Your task to perform on an android device: Go to Amazon Image 0: 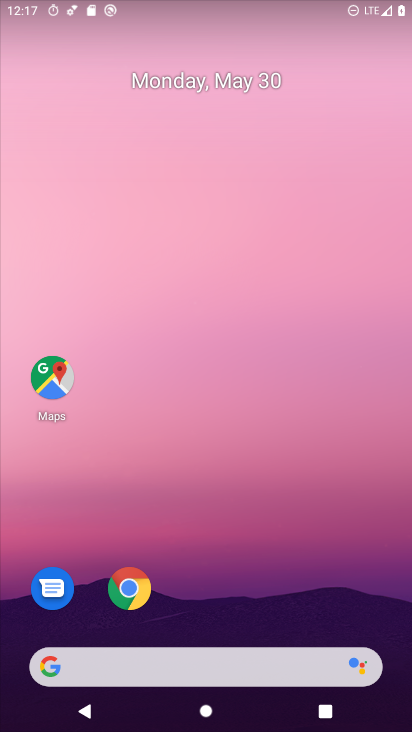
Step 0: drag from (204, 602) to (328, 13)
Your task to perform on an android device: Go to Amazon Image 1: 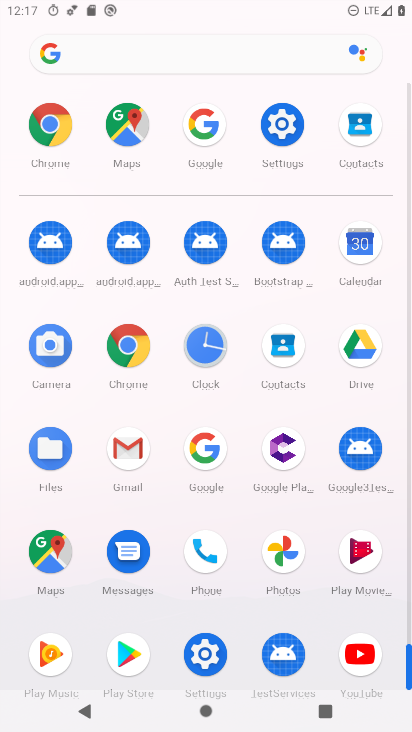
Step 1: click (120, 356)
Your task to perform on an android device: Go to Amazon Image 2: 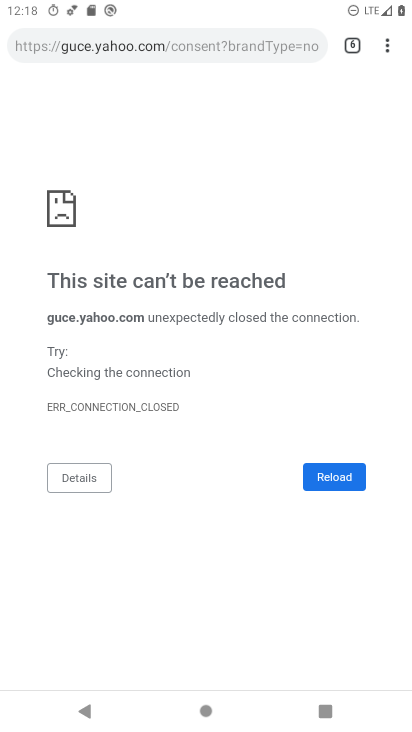
Step 2: click (352, 45)
Your task to perform on an android device: Go to Amazon Image 3: 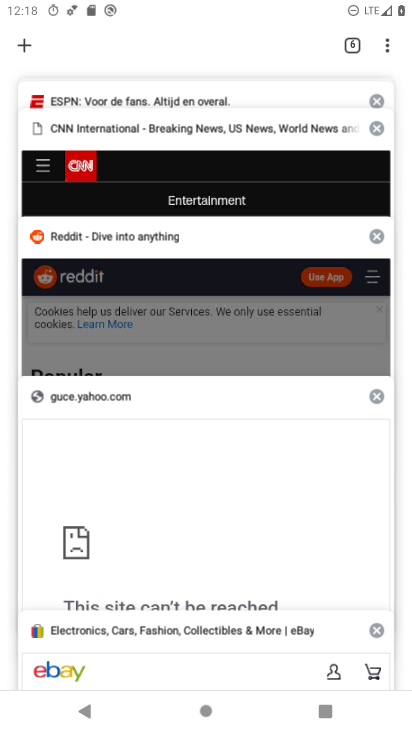
Step 3: click (17, 46)
Your task to perform on an android device: Go to Amazon Image 4: 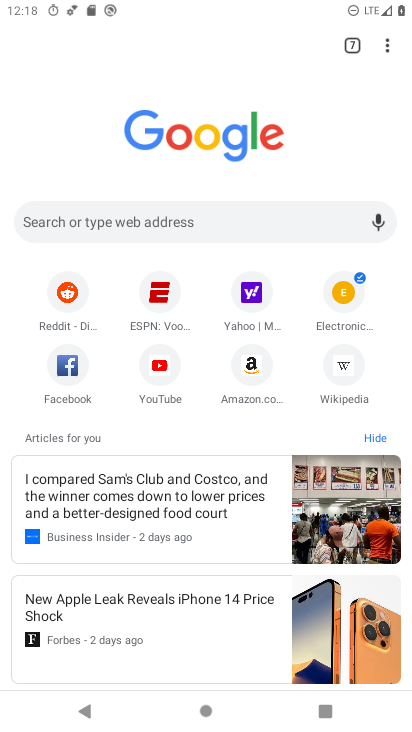
Step 4: click (100, 216)
Your task to perform on an android device: Go to Amazon Image 5: 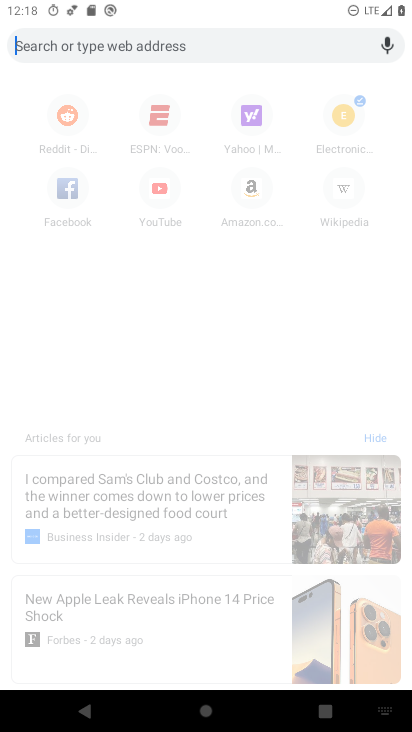
Step 5: type "Amazon"
Your task to perform on an android device: Go to Amazon Image 6: 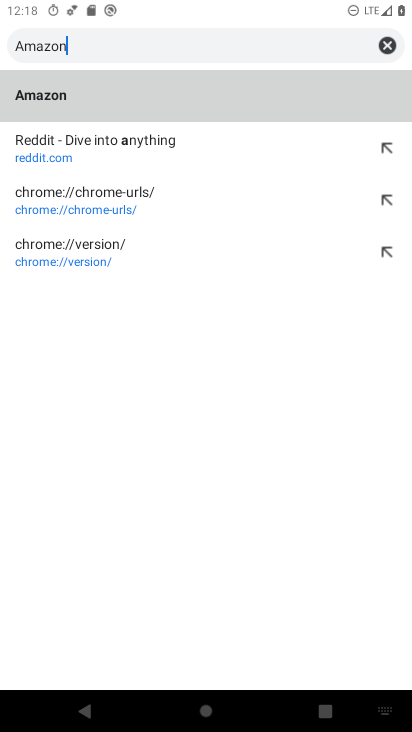
Step 6: type ""
Your task to perform on an android device: Go to Amazon Image 7: 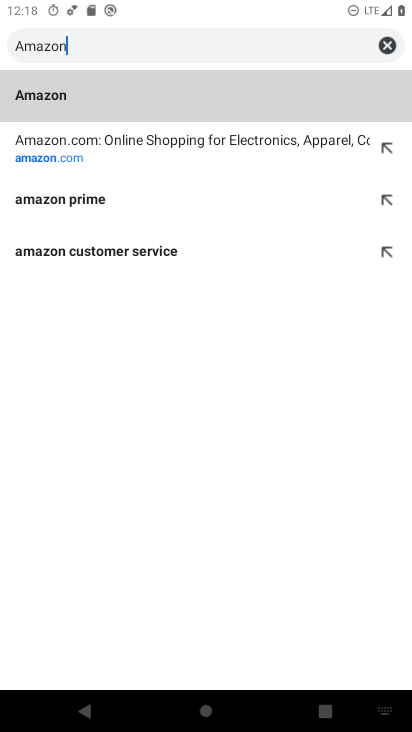
Step 7: click (105, 142)
Your task to perform on an android device: Go to Amazon Image 8: 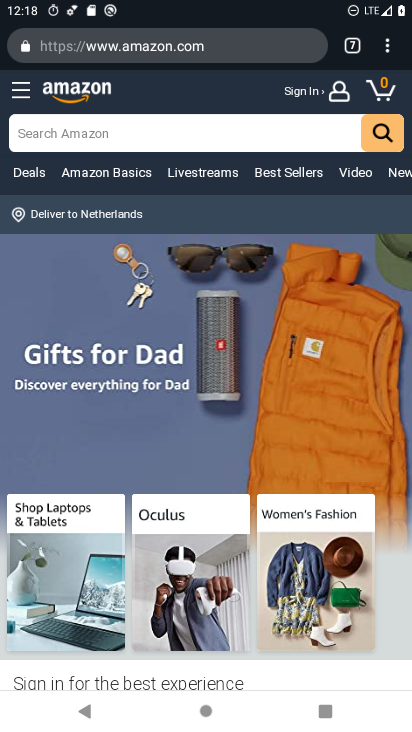
Step 8: task complete